Your task to perform on an android device: check out phone information Image 0: 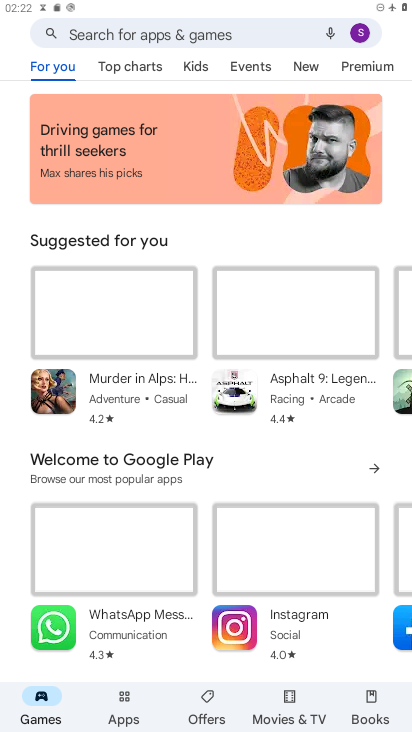
Step 0: press home button
Your task to perform on an android device: check out phone information Image 1: 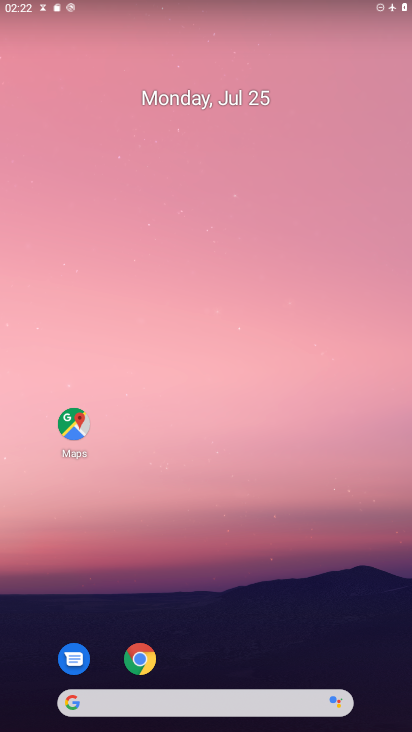
Step 1: drag from (228, 658) to (223, 213)
Your task to perform on an android device: check out phone information Image 2: 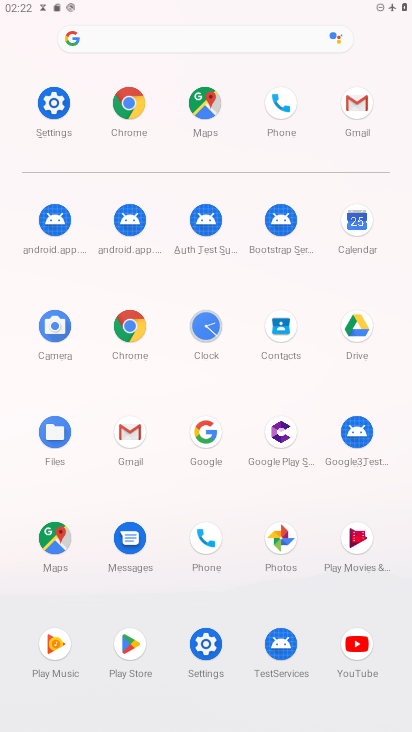
Step 2: click (48, 104)
Your task to perform on an android device: check out phone information Image 3: 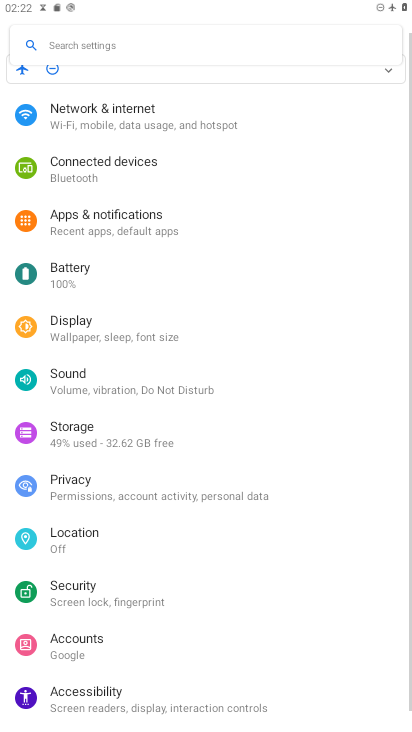
Step 3: drag from (157, 664) to (202, 81)
Your task to perform on an android device: check out phone information Image 4: 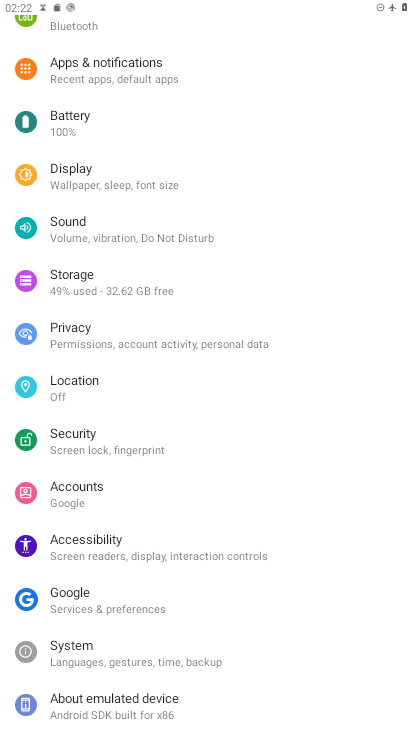
Step 4: click (117, 703)
Your task to perform on an android device: check out phone information Image 5: 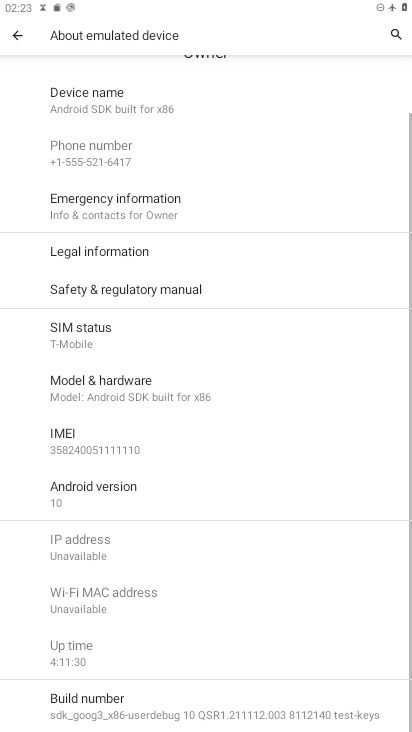
Step 5: task complete